Your task to perform on an android device: move a message to another label in the gmail app Image 0: 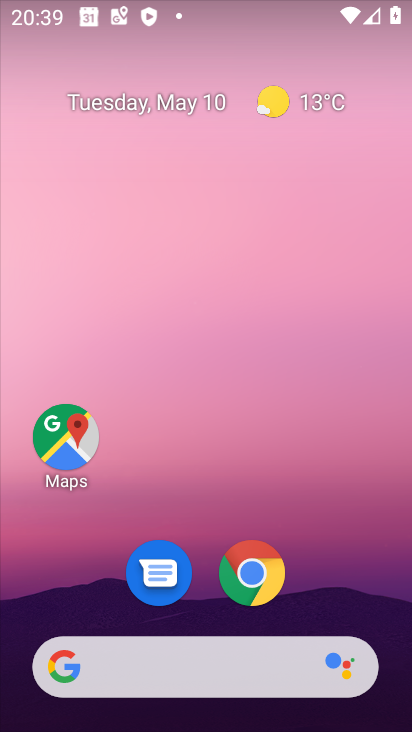
Step 0: drag from (366, 622) to (406, 1)
Your task to perform on an android device: move a message to another label in the gmail app Image 1: 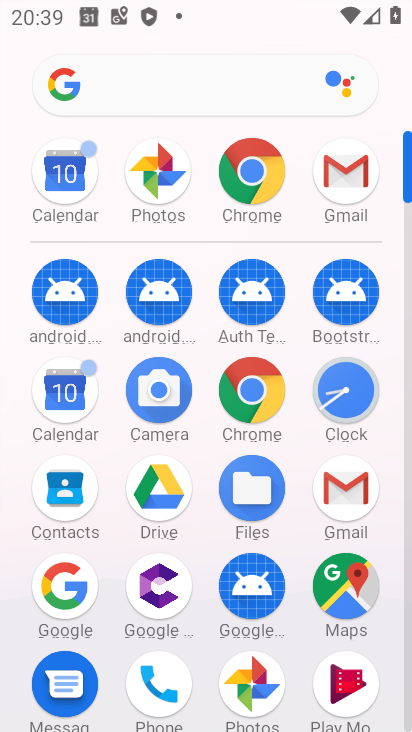
Step 1: click (347, 170)
Your task to perform on an android device: move a message to another label in the gmail app Image 2: 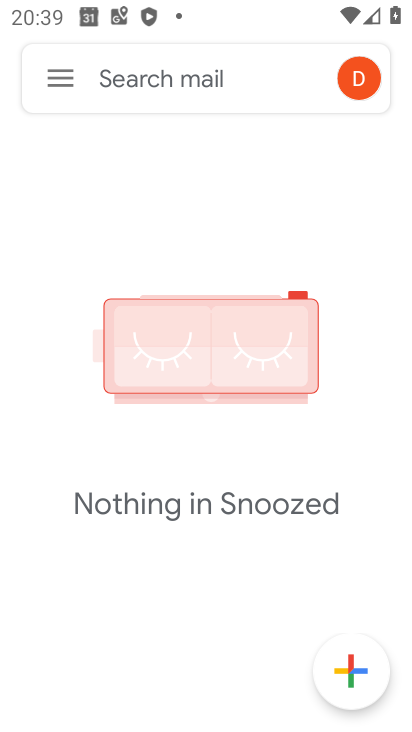
Step 2: click (55, 78)
Your task to perform on an android device: move a message to another label in the gmail app Image 3: 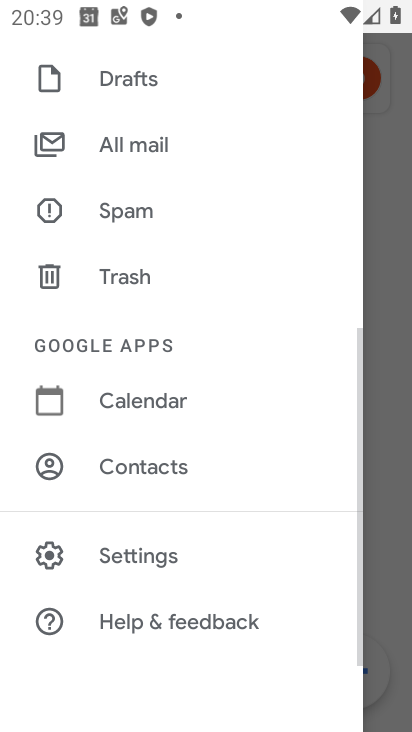
Step 3: click (129, 143)
Your task to perform on an android device: move a message to another label in the gmail app Image 4: 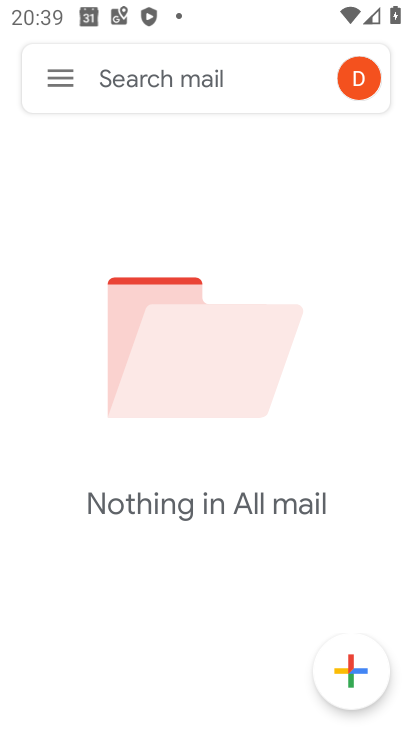
Step 4: task complete